Your task to perform on an android device: Search for vegetarian restaurants on Maps Image 0: 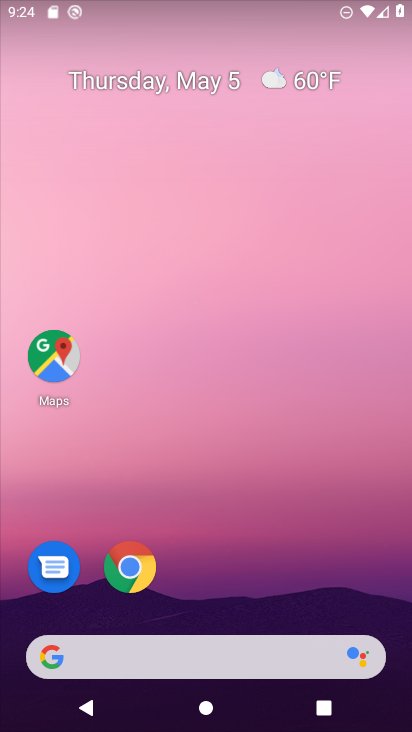
Step 0: drag from (227, 723) to (227, 149)
Your task to perform on an android device: Search for vegetarian restaurants on Maps Image 1: 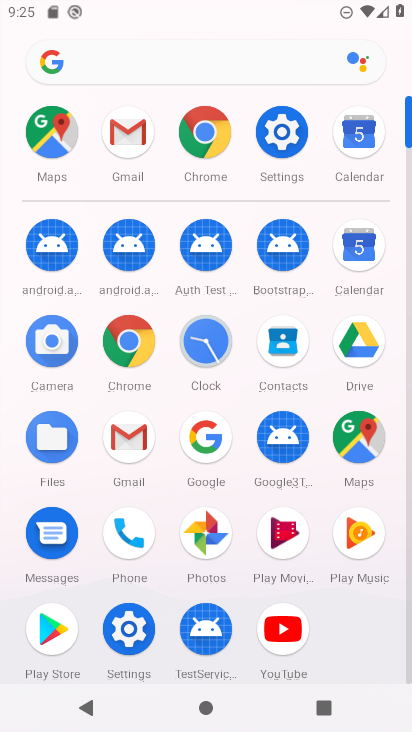
Step 1: click (356, 439)
Your task to perform on an android device: Search for vegetarian restaurants on Maps Image 2: 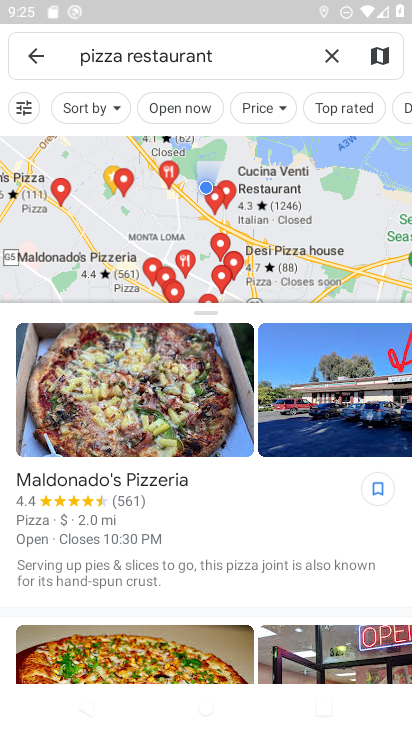
Step 2: click (336, 52)
Your task to perform on an android device: Search for vegetarian restaurants on Maps Image 3: 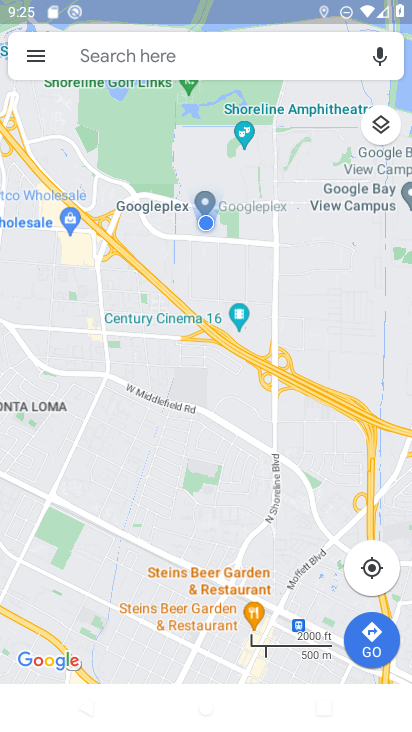
Step 3: click (160, 56)
Your task to perform on an android device: Search for vegetarian restaurants on Maps Image 4: 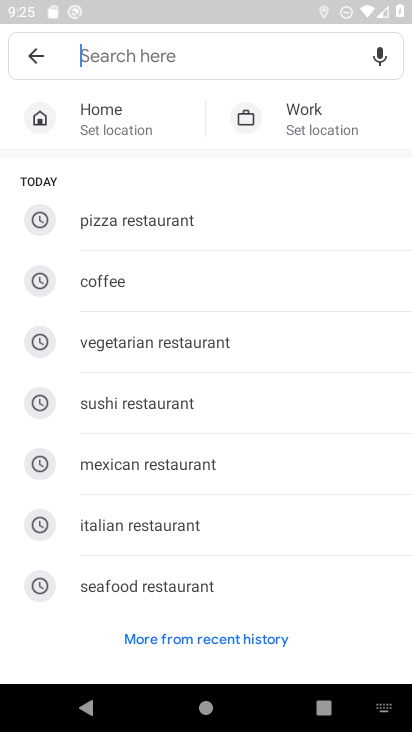
Step 4: type "vegetarian restaurants"
Your task to perform on an android device: Search for vegetarian restaurants on Maps Image 5: 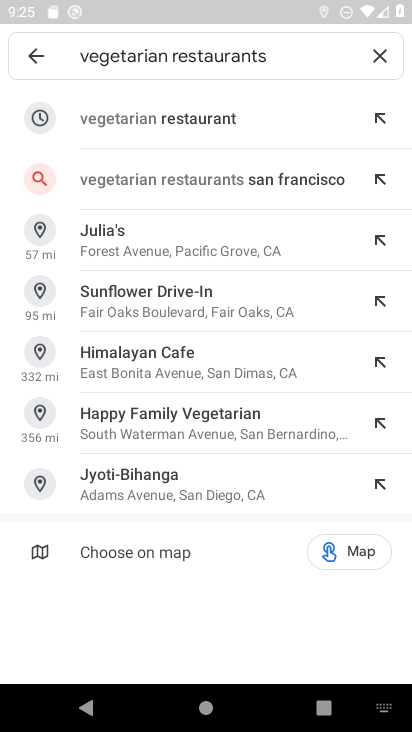
Step 5: click (173, 123)
Your task to perform on an android device: Search for vegetarian restaurants on Maps Image 6: 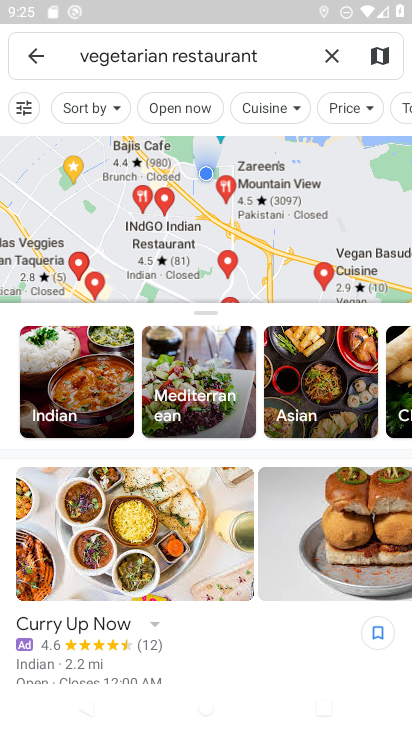
Step 6: task complete